Your task to perform on an android device: Go to network settings Image 0: 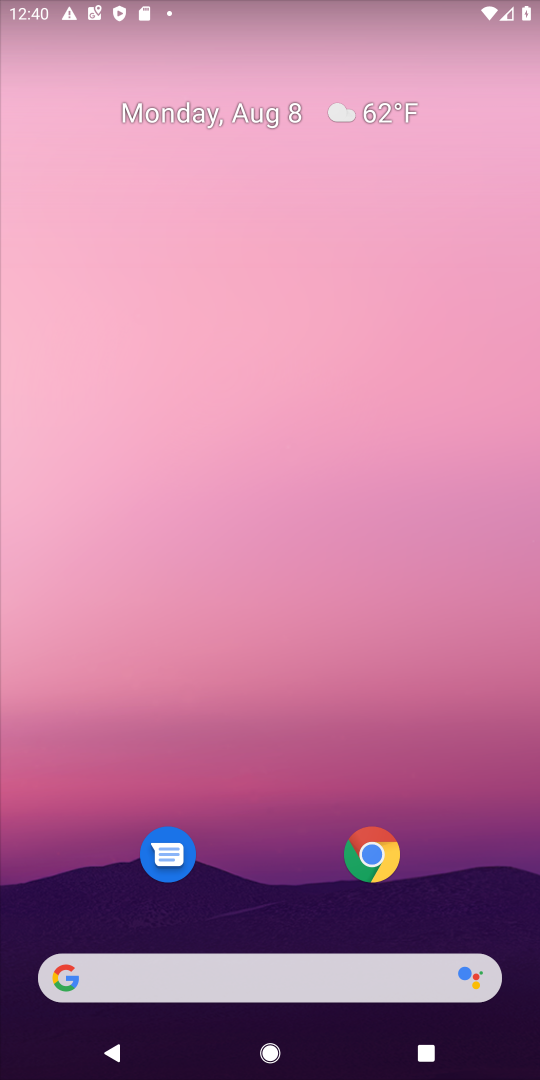
Step 0: press home button
Your task to perform on an android device: Go to network settings Image 1: 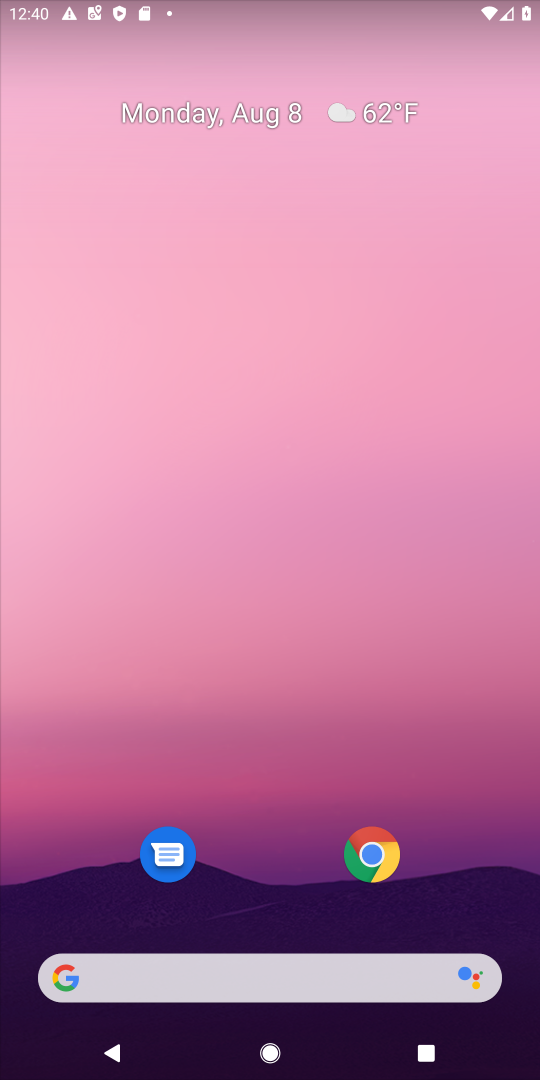
Step 1: click (326, 138)
Your task to perform on an android device: Go to network settings Image 2: 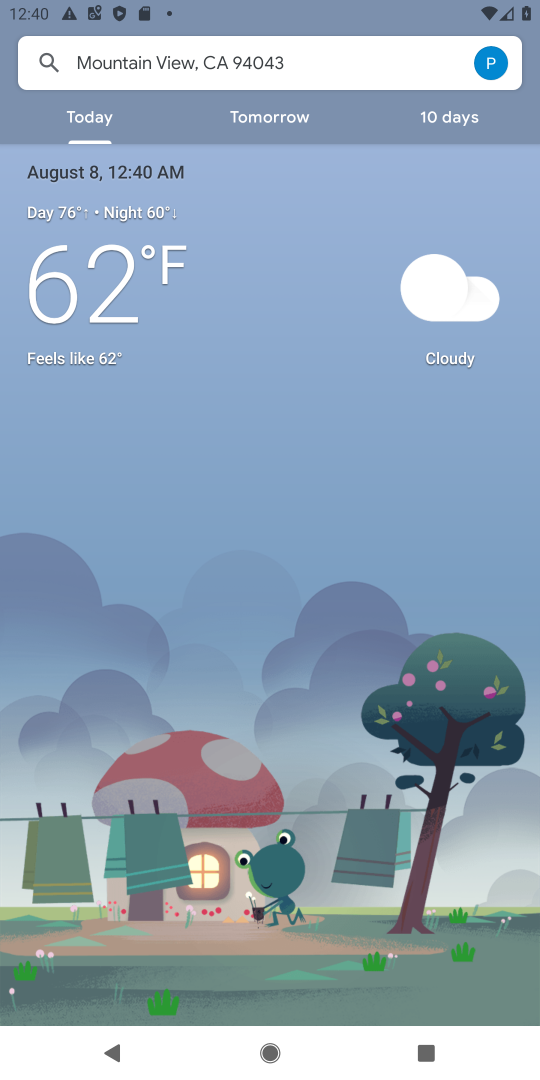
Step 2: press home button
Your task to perform on an android device: Go to network settings Image 3: 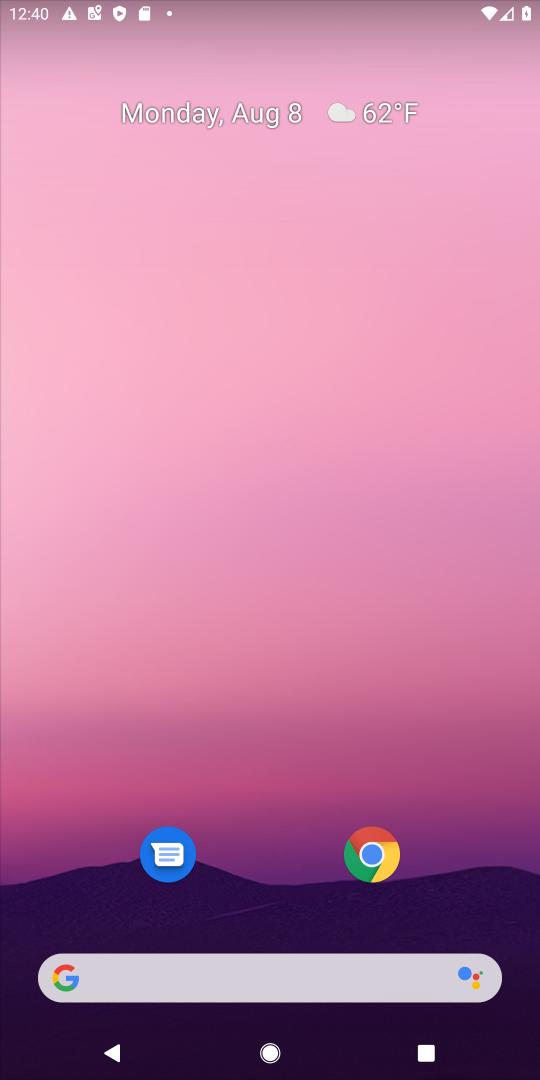
Step 3: drag from (260, 697) to (306, 184)
Your task to perform on an android device: Go to network settings Image 4: 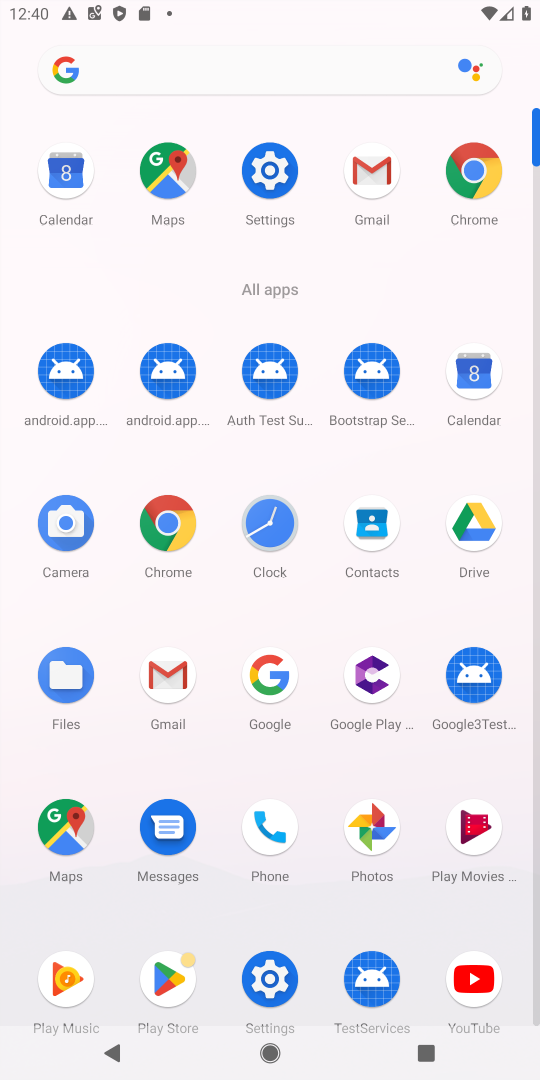
Step 4: click (248, 161)
Your task to perform on an android device: Go to network settings Image 5: 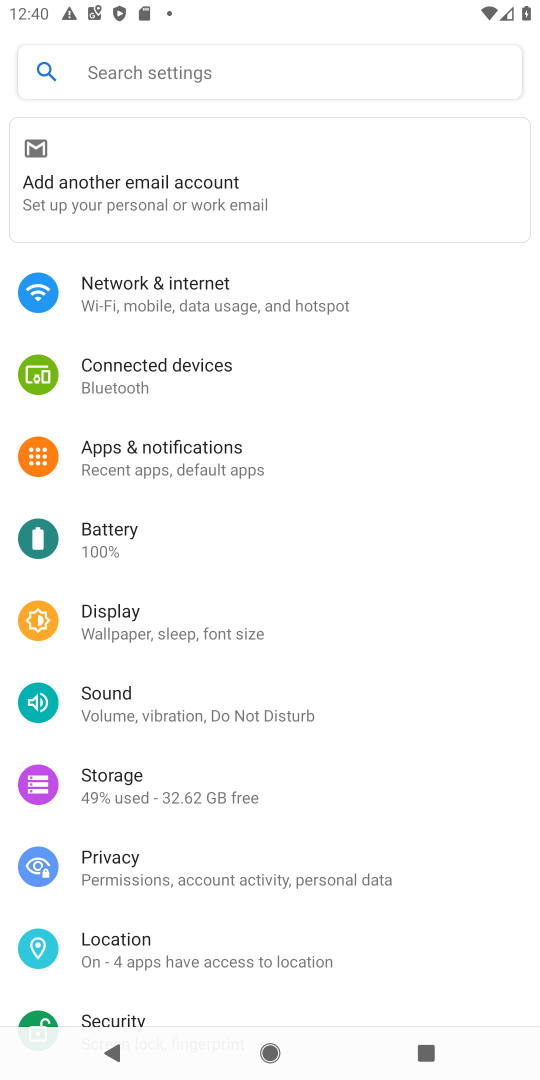
Step 5: click (158, 288)
Your task to perform on an android device: Go to network settings Image 6: 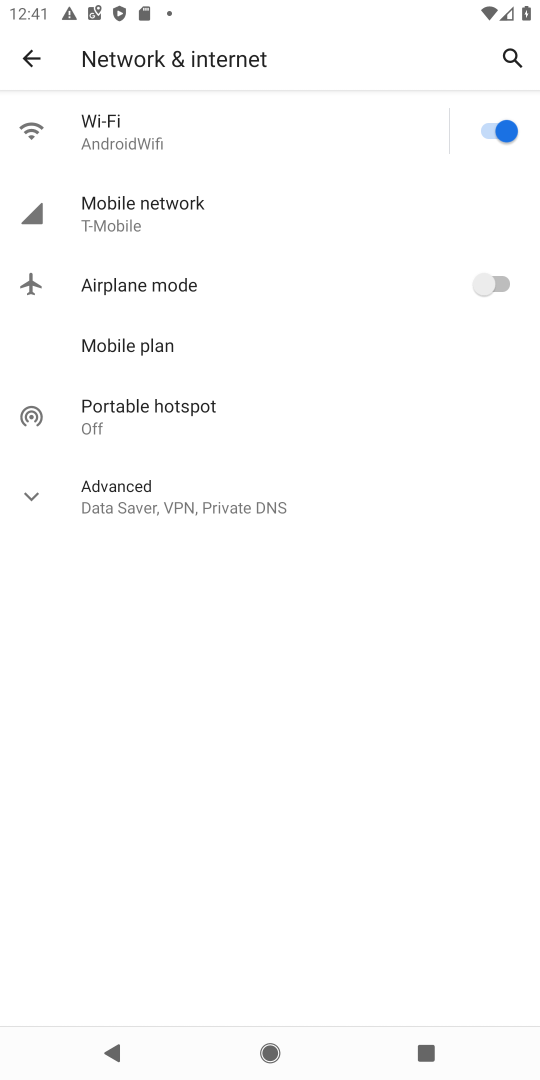
Step 6: task complete